Your task to perform on an android device: Go to Reddit.com Image 0: 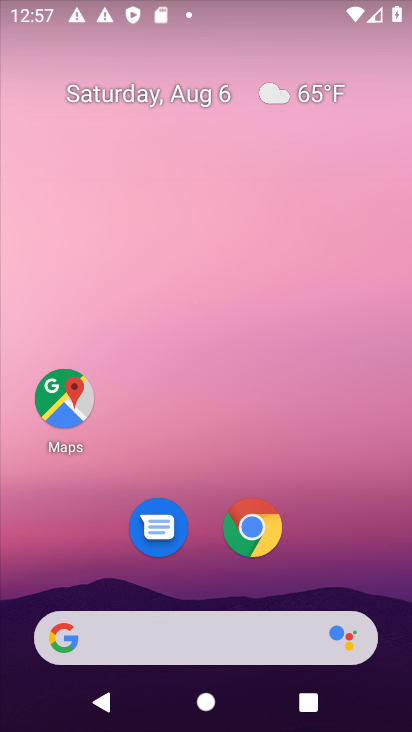
Step 0: drag from (307, 644) to (228, 43)
Your task to perform on an android device: Go to Reddit.com Image 1: 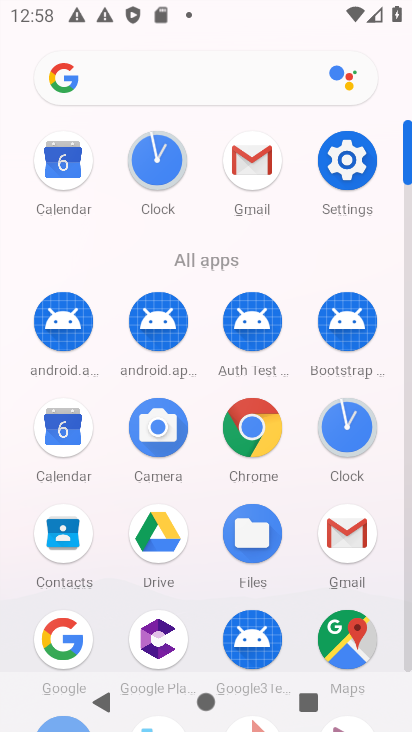
Step 1: click (247, 428)
Your task to perform on an android device: Go to Reddit.com Image 2: 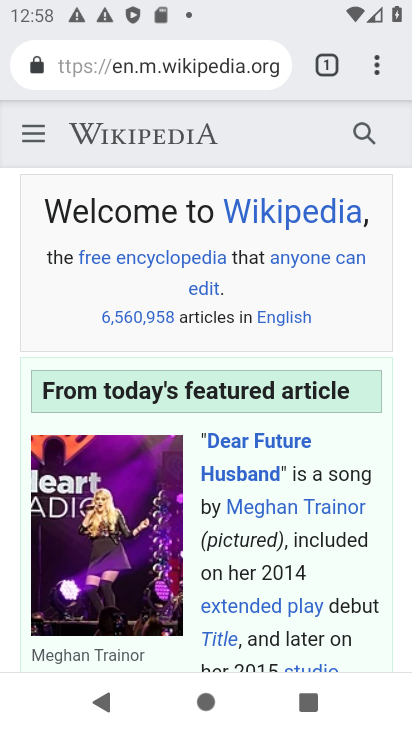
Step 2: click (133, 55)
Your task to perform on an android device: Go to Reddit.com Image 3: 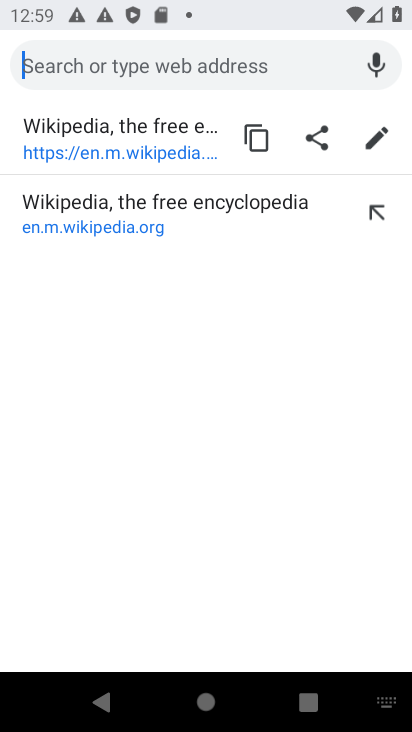
Step 3: type "Reddit.com"
Your task to perform on an android device: Go to Reddit.com Image 4: 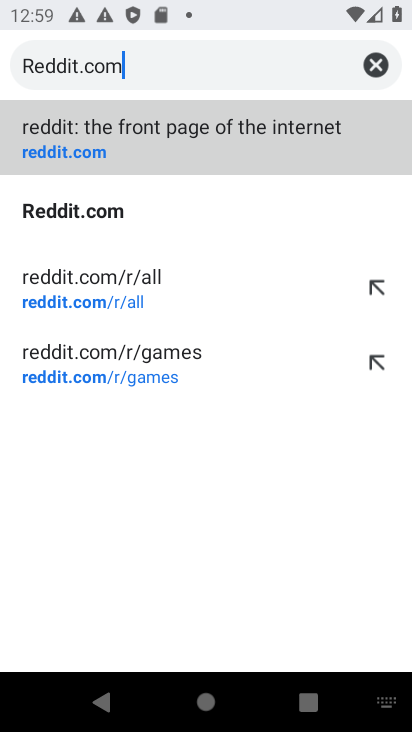
Step 4: click (78, 161)
Your task to perform on an android device: Go to Reddit.com Image 5: 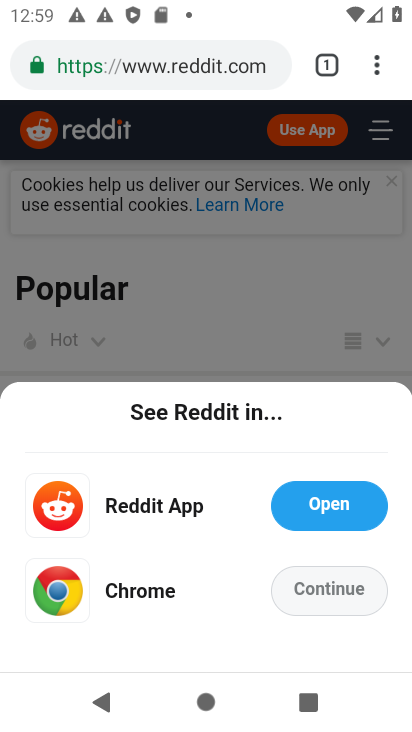
Step 5: task complete